Your task to perform on an android device: What's the weather going to be tomorrow? Image 0: 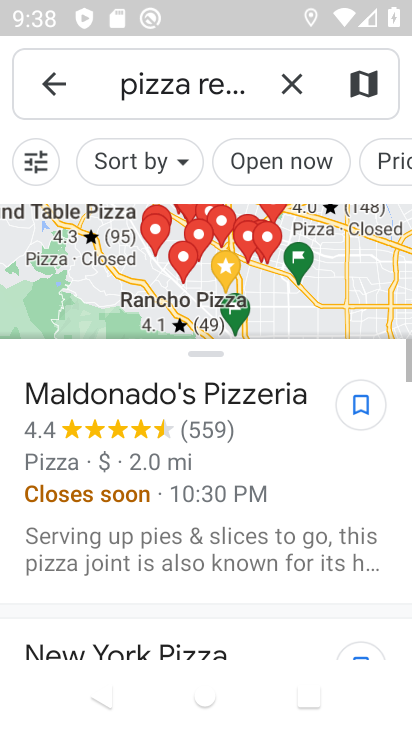
Step 0: press home button
Your task to perform on an android device: What's the weather going to be tomorrow? Image 1: 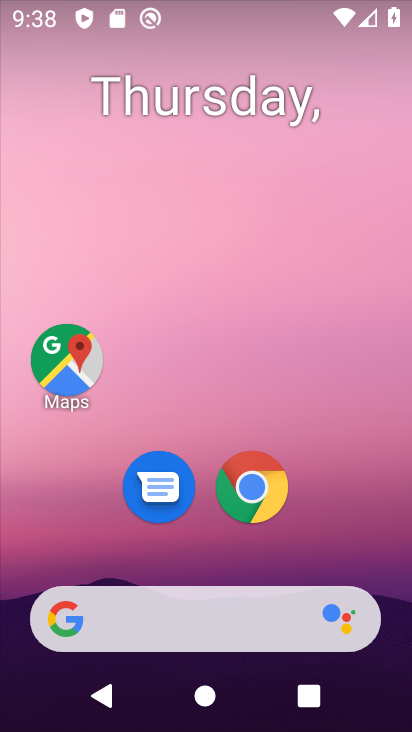
Step 1: click (261, 500)
Your task to perform on an android device: What's the weather going to be tomorrow? Image 2: 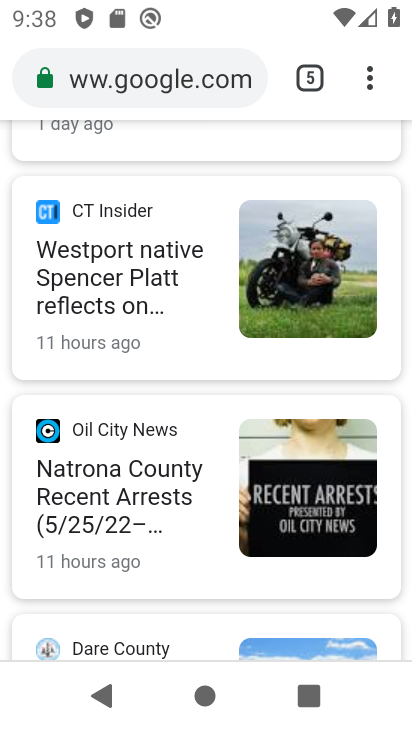
Step 2: click (316, 80)
Your task to perform on an android device: What's the weather going to be tomorrow? Image 3: 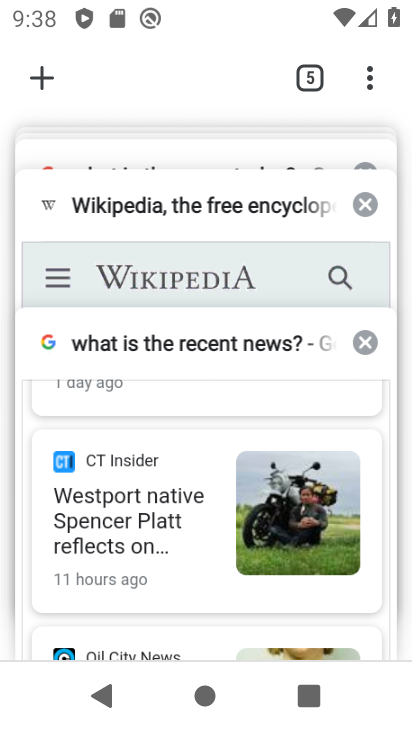
Step 3: click (46, 76)
Your task to perform on an android device: What's the weather going to be tomorrow? Image 4: 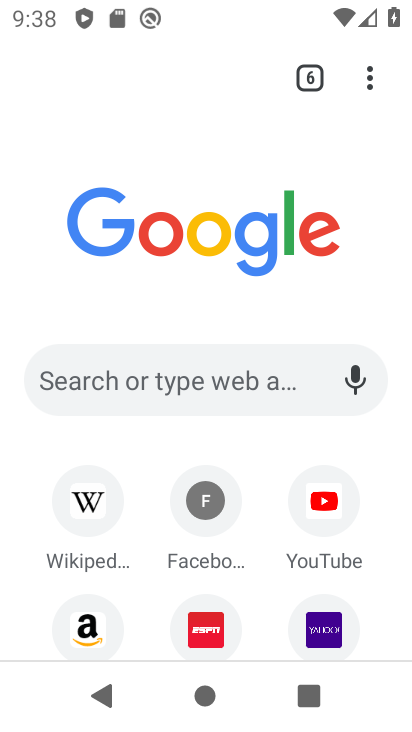
Step 4: click (122, 387)
Your task to perform on an android device: What's the weather going to be tomorrow? Image 5: 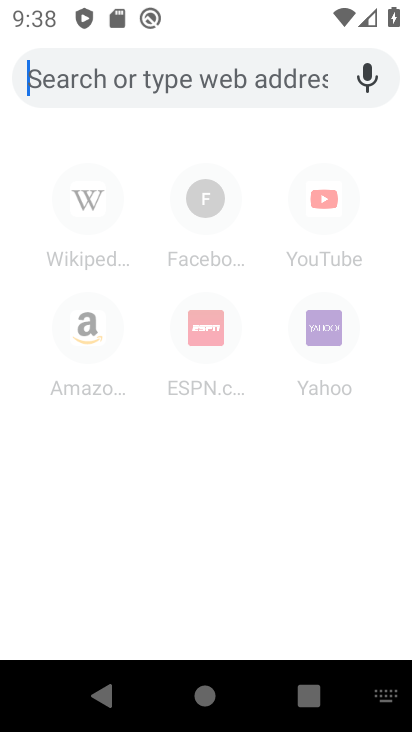
Step 5: type "What's the weather going to be tomorrow?"
Your task to perform on an android device: What's the weather going to be tomorrow? Image 6: 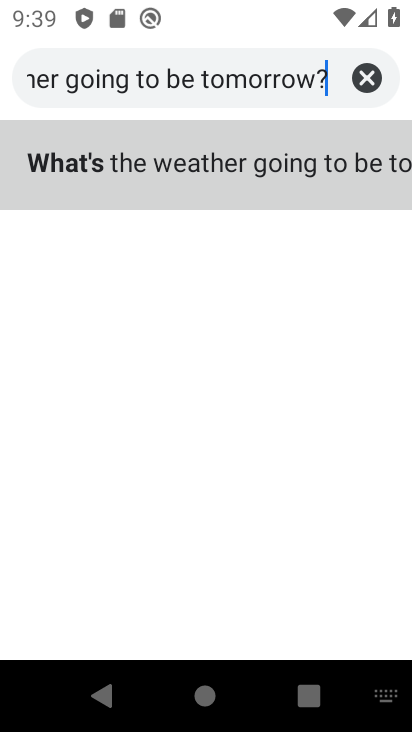
Step 6: click (97, 165)
Your task to perform on an android device: What's the weather going to be tomorrow? Image 7: 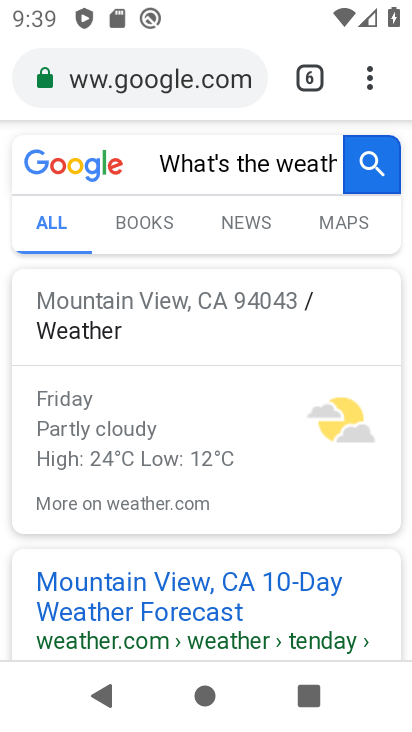
Step 7: task complete